Your task to perform on an android device: change the clock display to analog Image 0: 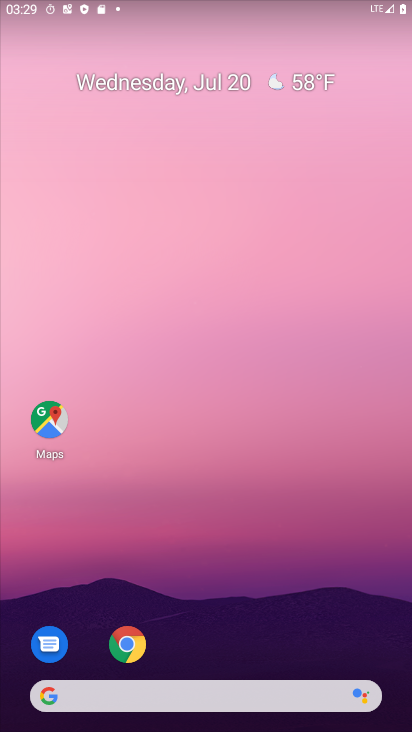
Step 0: drag from (32, 626) to (99, 299)
Your task to perform on an android device: change the clock display to analog Image 1: 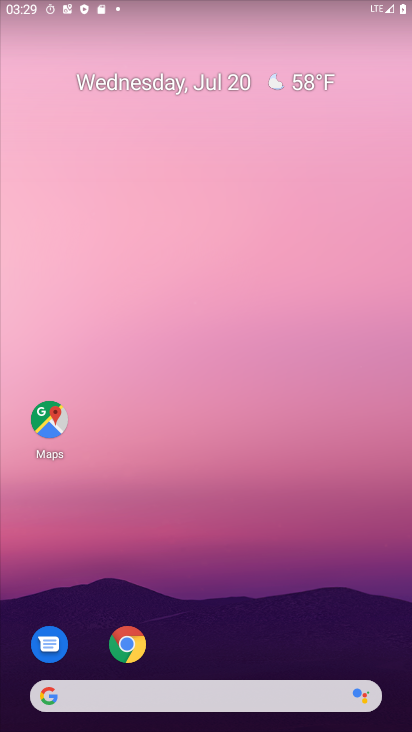
Step 1: drag from (10, 695) to (92, 173)
Your task to perform on an android device: change the clock display to analog Image 2: 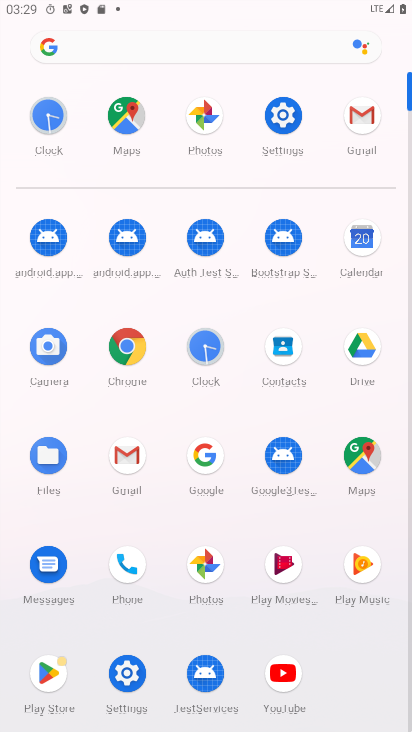
Step 2: click (211, 354)
Your task to perform on an android device: change the clock display to analog Image 3: 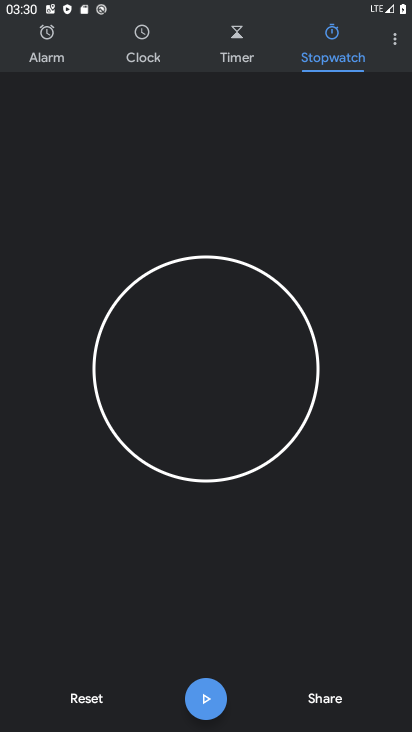
Step 3: click (141, 43)
Your task to perform on an android device: change the clock display to analog Image 4: 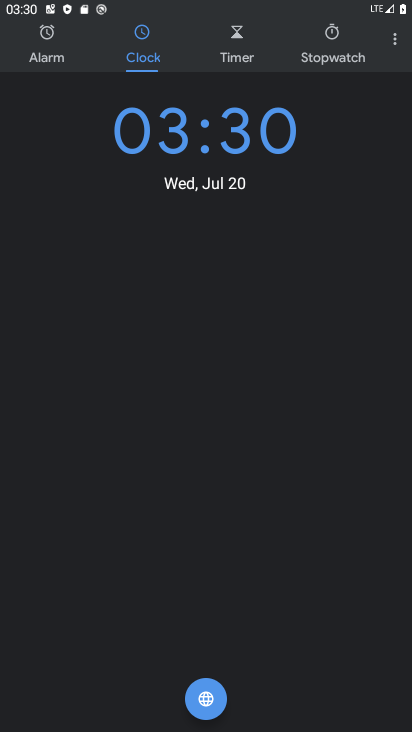
Step 4: click (390, 38)
Your task to perform on an android device: change the clock display to analog Image 5: 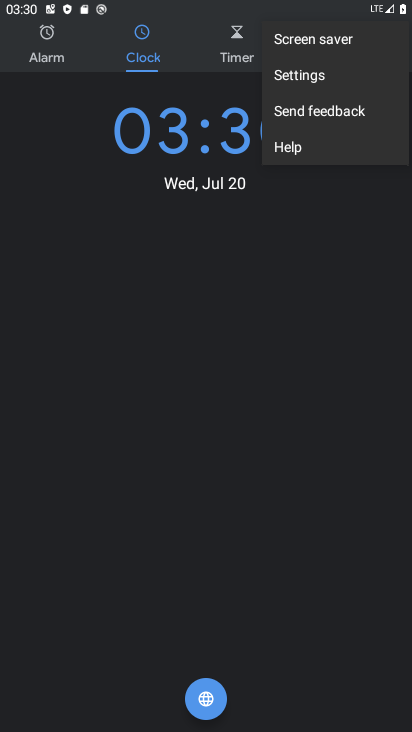
Step 5: click (298, 85)
Your task to perform on an android device: change the clock display to analog Image 6: 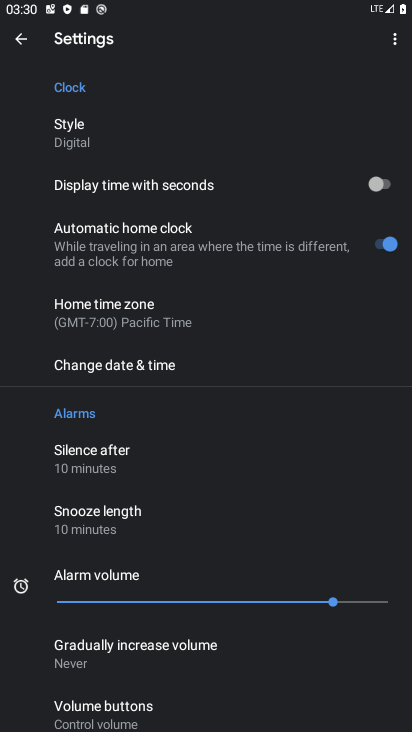
Step 6: click (92, 131)
Your task to perform on an android device: change the clock display to analog Image 7: 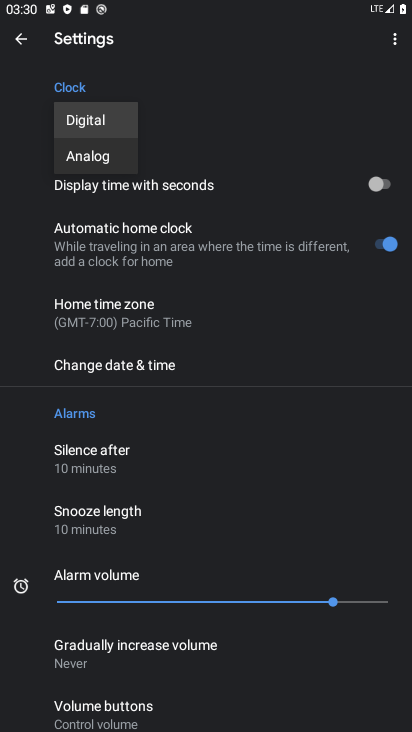
Step 7: click (92, 123)
Your task to perform on an android device: change the clock display to analog Image 8: 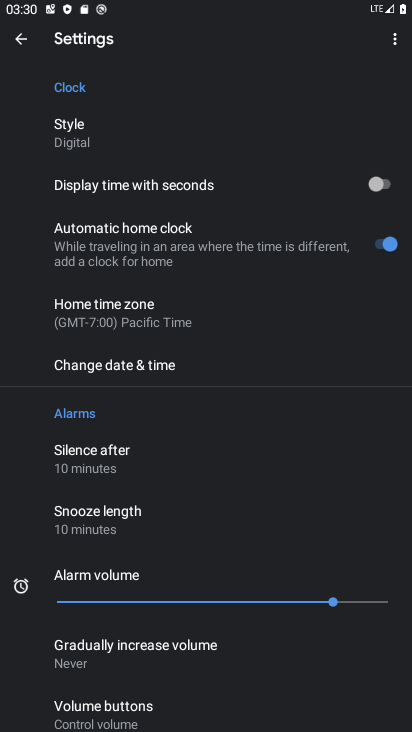
Step 8: task complete